Your task to perform on an android device: check battery use Image 0: 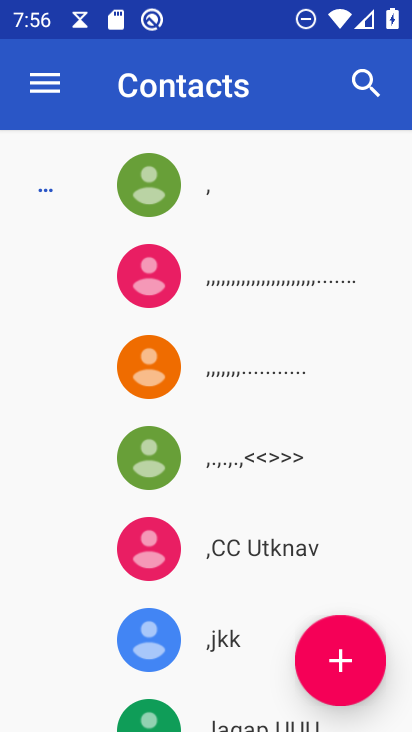
Step 0: press home button
Your task to perform on an android device: check battery use Image 1: 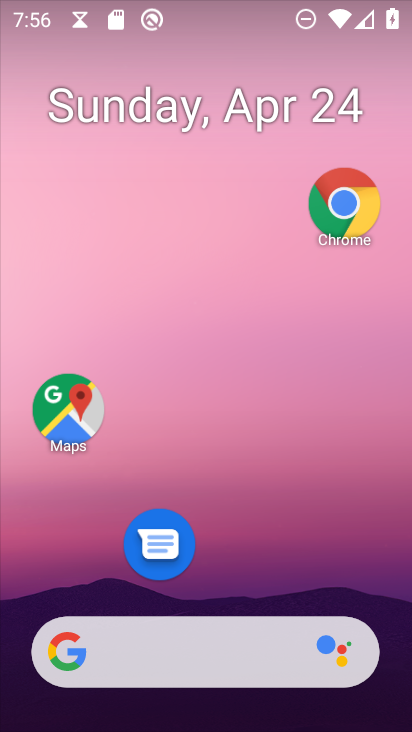
Step 1: drag from (157, 655) to (309, 154)
Your task to perform on an android device: check battery use Image 2: 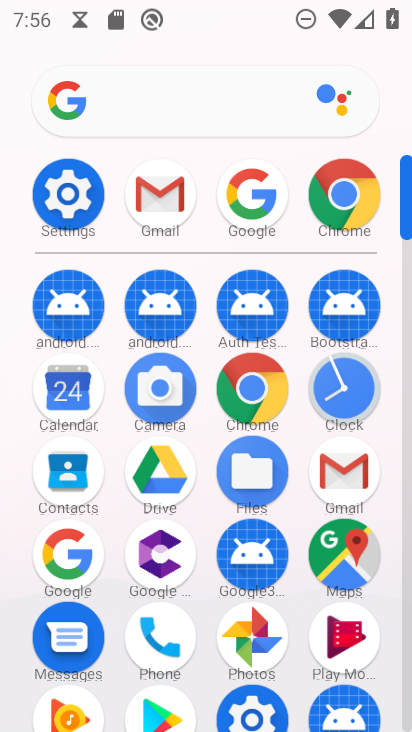
Step 2: click (70, 194)
Your task to perform on an android device: check battery use Image 3: 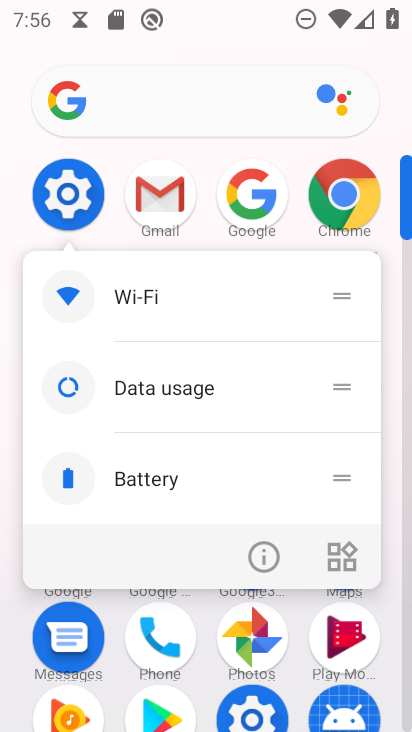
Step 3: click (71, 199)
Your task to perform on an android device: check battery use Image 4: 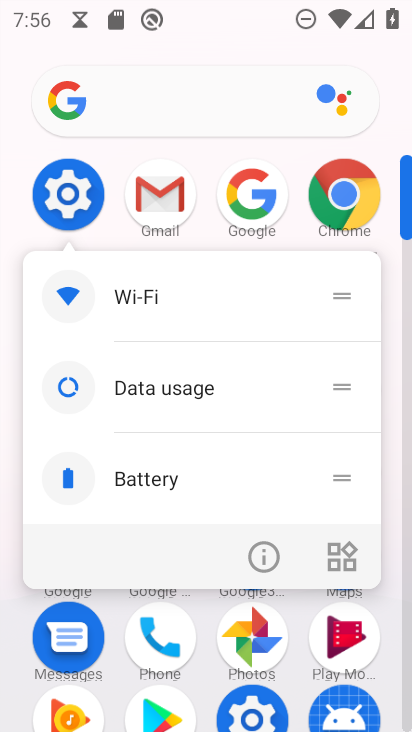
Step 4: click (71, 202)
Your task to perform on an android device: check battery use Image 5: 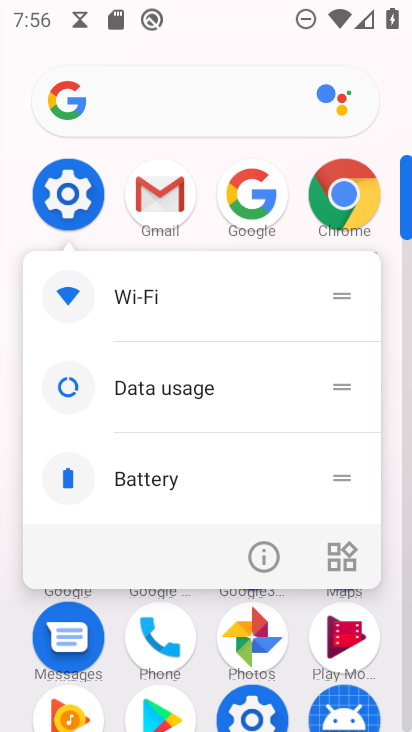
Step 5: click (60, 206)
Your task to perform on an android device: check battery use Image 6: 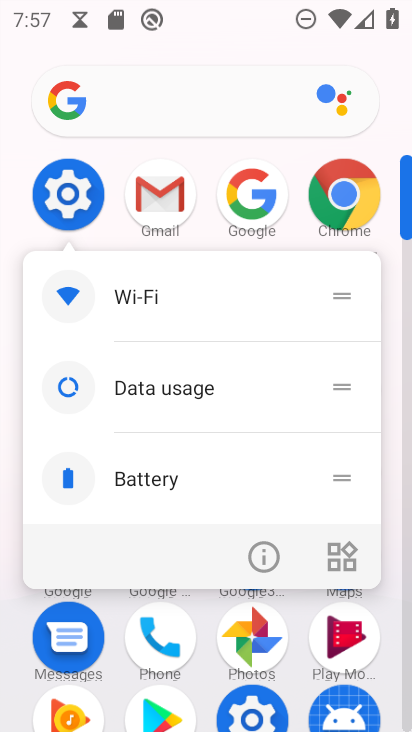
Step 6: click (64, 201)
Your task to perform on an android device: check battery use Image 7: 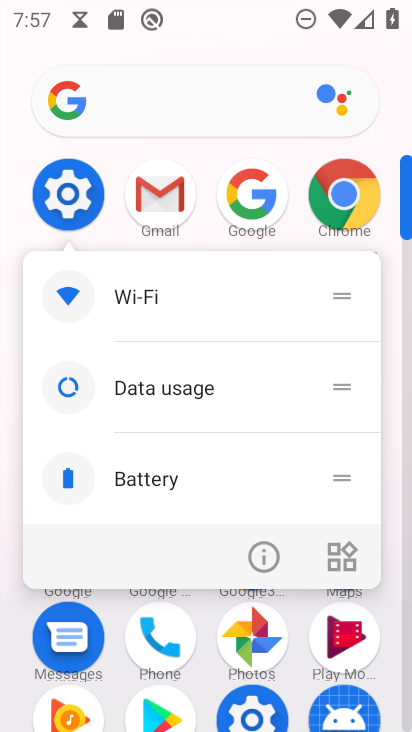
Step 7: click (70, 195)
Your task to perform on an android device: check battery use Image 8: 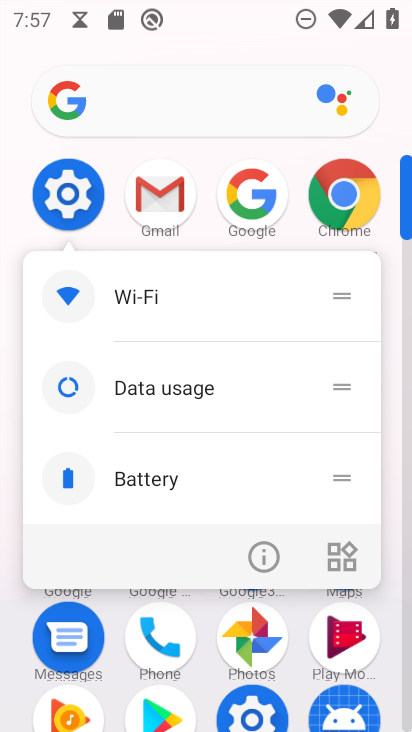
Step 8: click (70, 199)
Your task to perform on an android device: check battery use Image 9: 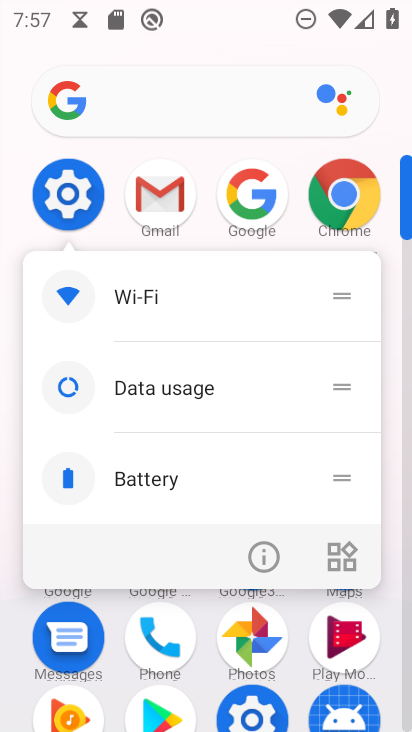
Step 9: click (65, 204)
Your task to perform on an android device: check battery use Image 10: 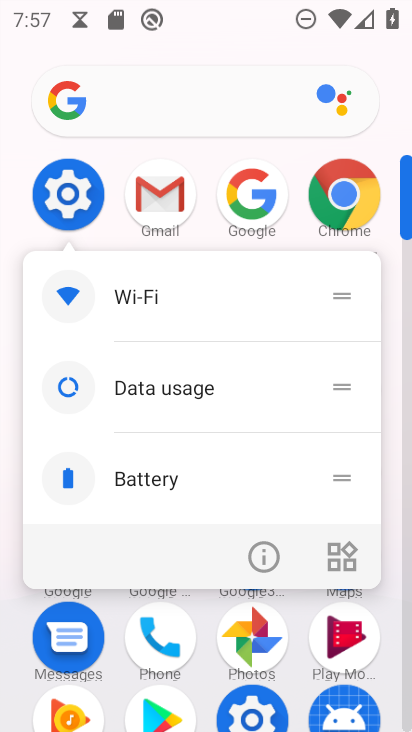
Step 10: click (67, 211)
Your task to perform on an android device: check battery use Image 11: 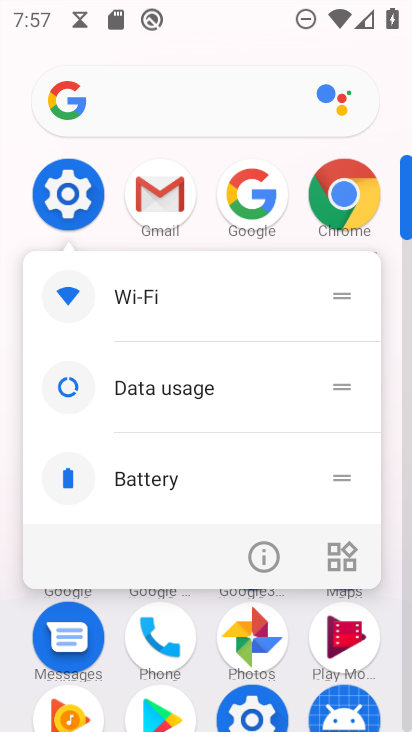
Step 11: click (70, 201)
Your task to perform on an android device: check battery use Image 12: 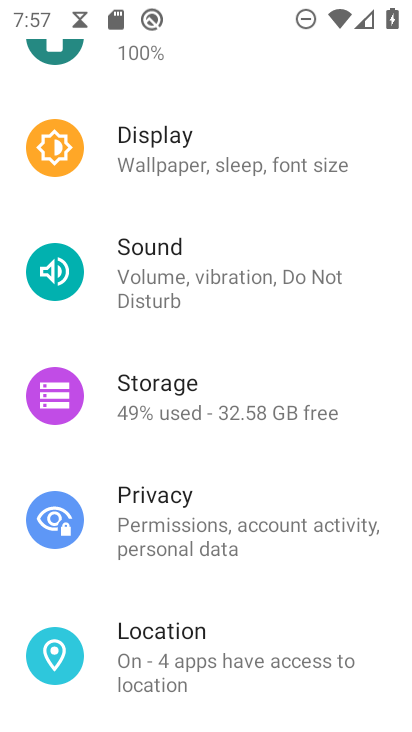
Step 12: drag from (259, 94) to (241, 510)
Your task to perform on an android device: check battery use Image 13: 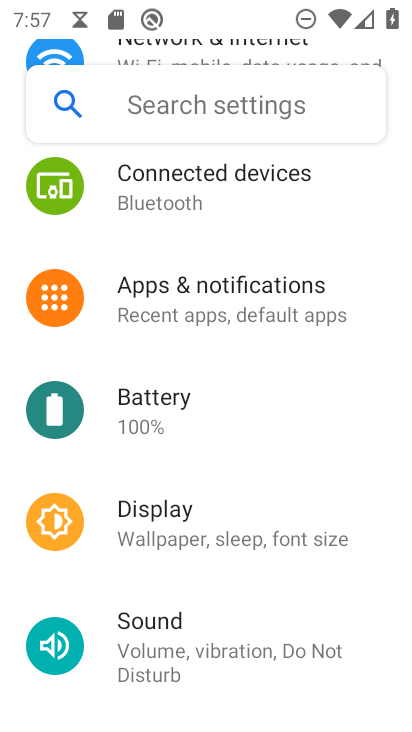
Step 13: click (149, 401)
Your task to perform on an android device: check battery use Image 14: 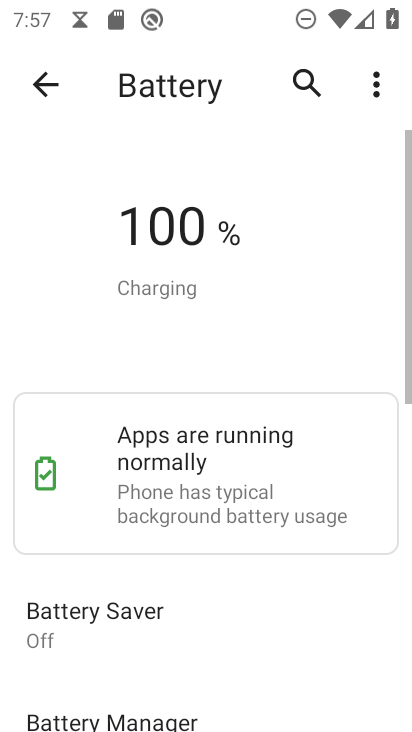
Step 14: click (374, 81)
Your task to perform on an android device: check battery use Image 15: 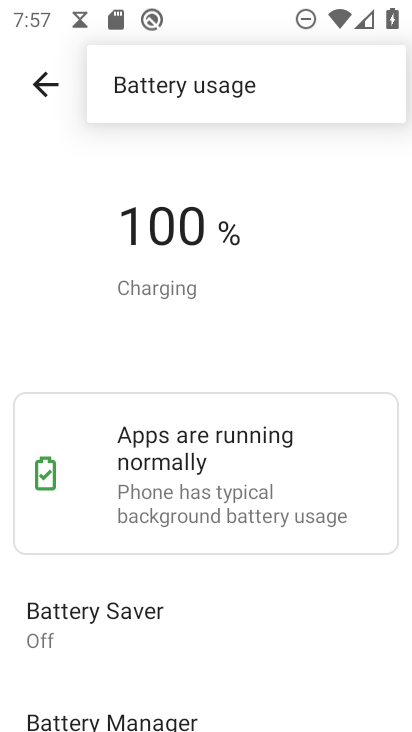
Step 15: click (213, 82)
Your task to perform on an android device: check battery use Image 16: 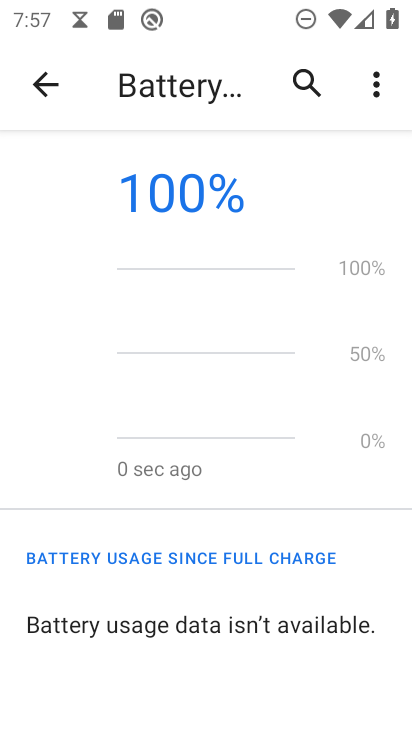
Step 16: task complete